Your task to perform on an android device: turn pop-ups off in chrome Image 0: 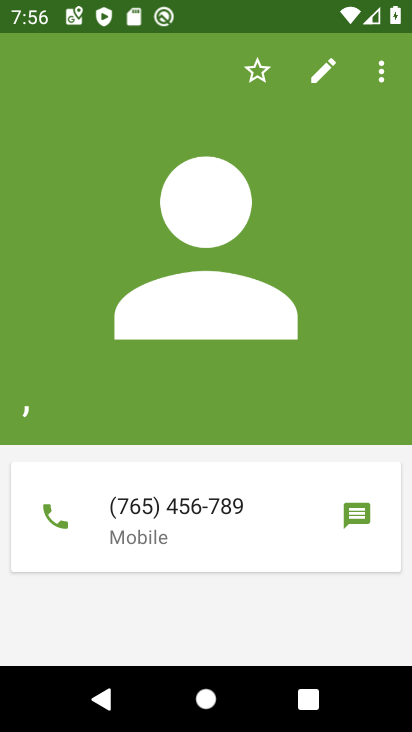
Step 0: press home button
Your task to perform on an android device: turn pop-ups off in chrome Image 1: 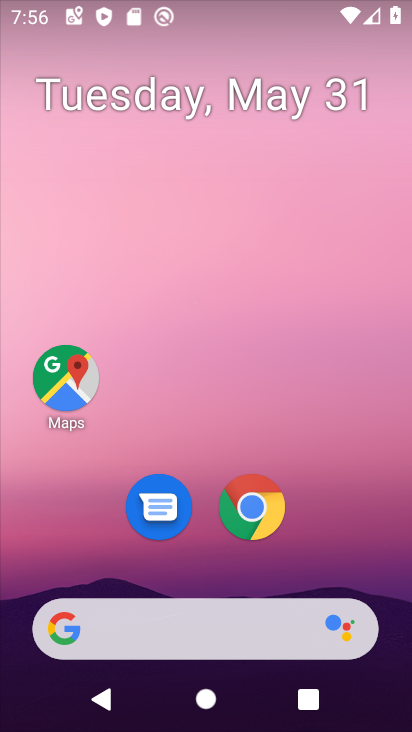
Step 1: click (254, 502)
Your task to perform on an android device: turn pop-ups off in chrome Image 2: 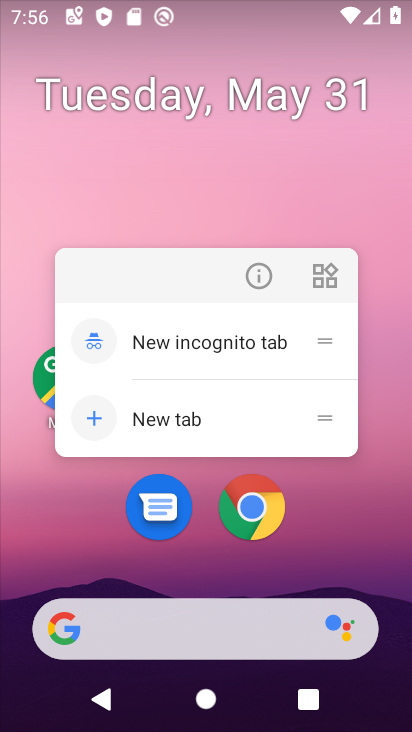
Step 2: click (394, 550)
Your task to perform on an android device: turn pop-ups off in chrome Image 3: 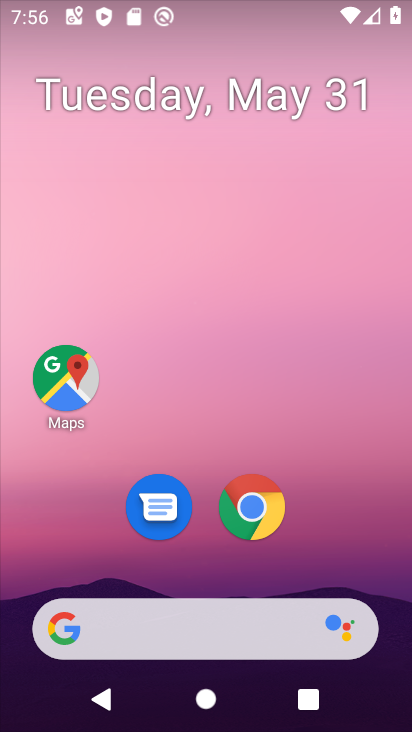
Step 3: drag from (387, 546) to (331, 169)
Your task to perform on an android device: turn pop-ups off in chrome Image 4: 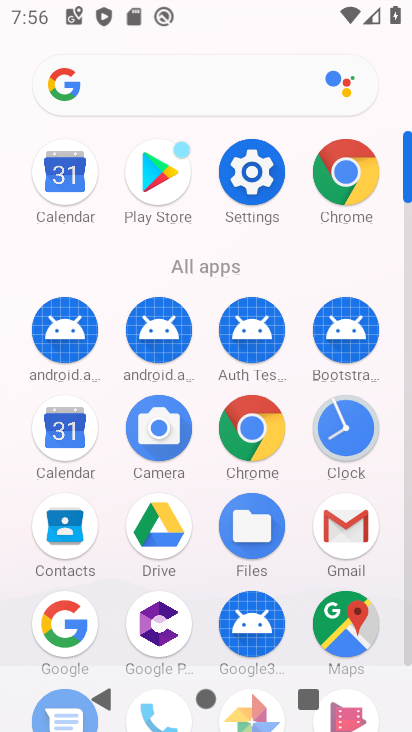
Step 4: click (248, 424)
Your task to perform on an android device: turn pop-ups off in chrome Image 5: 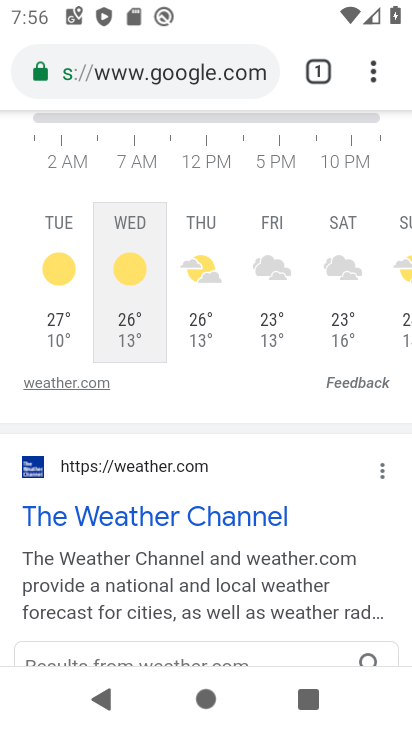
Step 5: drag from (375, 66) to (176, 510)
Your task to perform on an android device: turn pop-ups off in chrome Image 6: 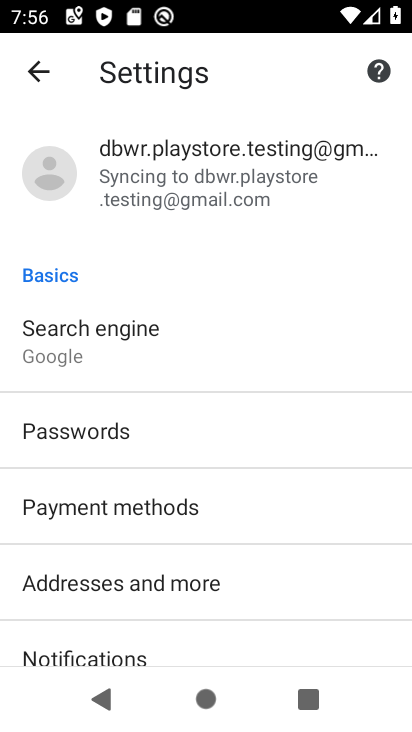
Step 6: drag from (191, 603) to (144, 288)
Your task to perform on an android device: turn pop-ups off in chrome Image 7: 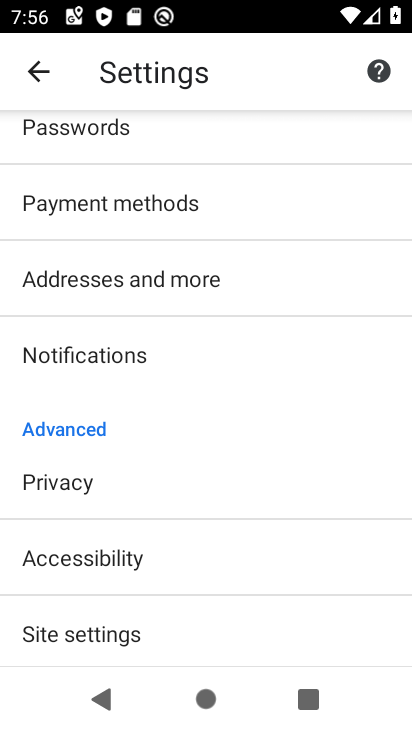
Step 7: drag from (161, 599) to (157, 324)
Your task to perform on an android device: turn pop-ups off in chrome Image 8: 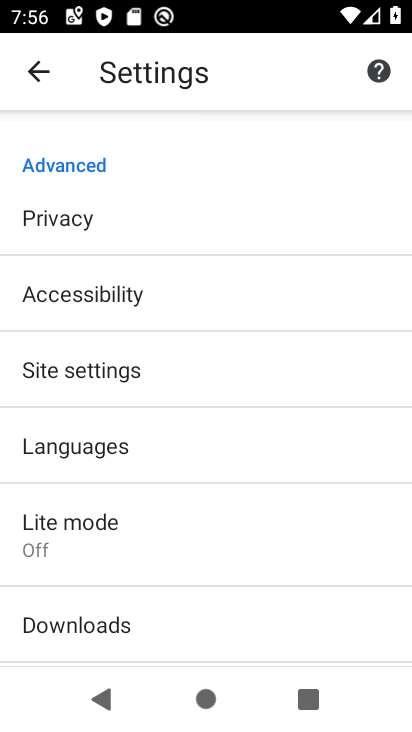
Step 8: click (142, 370)
Your task to perform on an android device: turn pop-ups off in chrome Image 9: 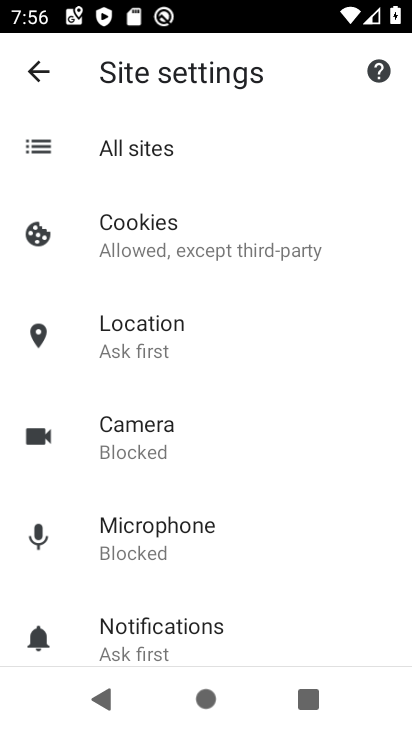
Step 9: drag from (250, 605) to (139, 285)
Your task to perform on an android device: turn pop-ups off in chrome Image 10: 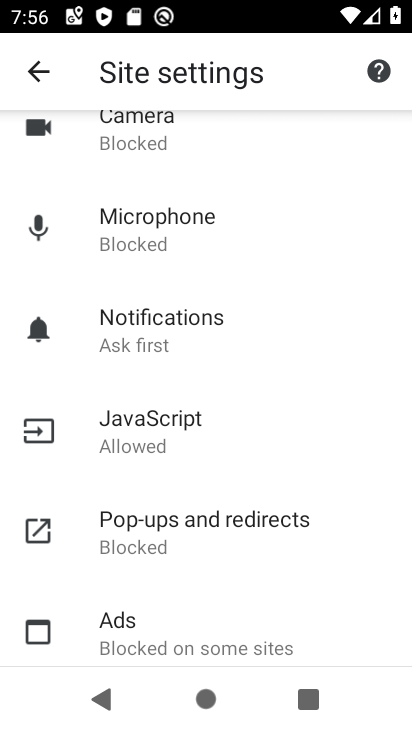
Step 10: click (182, 549)
Your task to perform on an android device: turn pop-ups off in chrome Image 11: 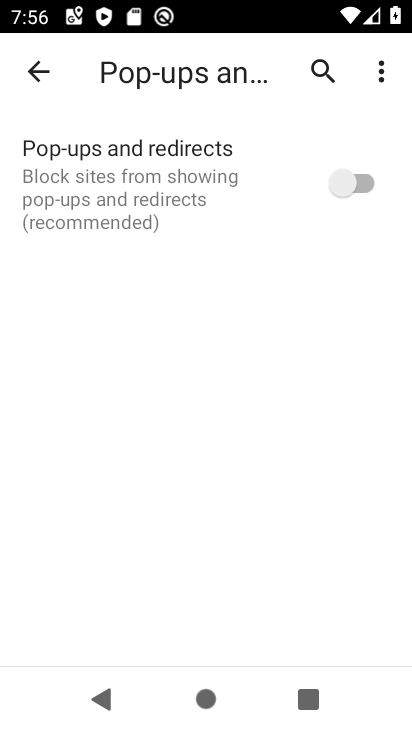
Step 11: task complete